Your task to perform on an android device: toggle javascript in the chrome app Image 0: 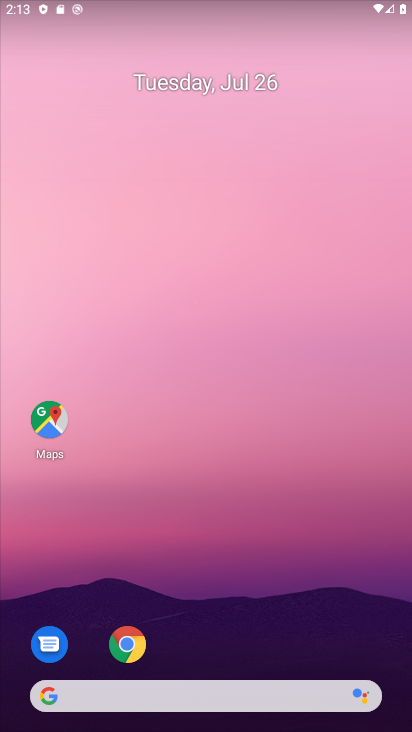
Step 0: press home button
Your task to perform on an android device: toggle javascript in the chrome app Image 1: 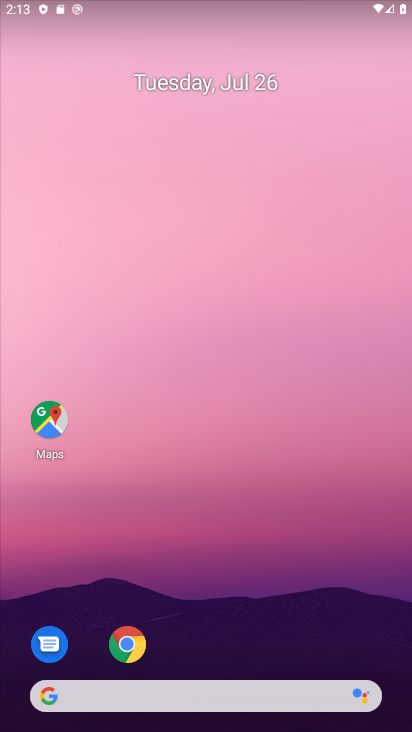
Step 1: click (124, 643)
Your task to perform on an android device: toggle javascript in the chrome app Image 2: 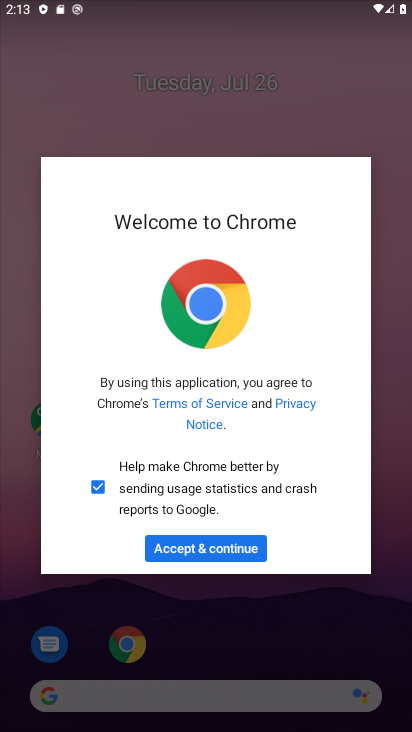
Step 2: click (218, 549)
Your task to perform on an android device: toggle javascript in the chrome app Image 3: 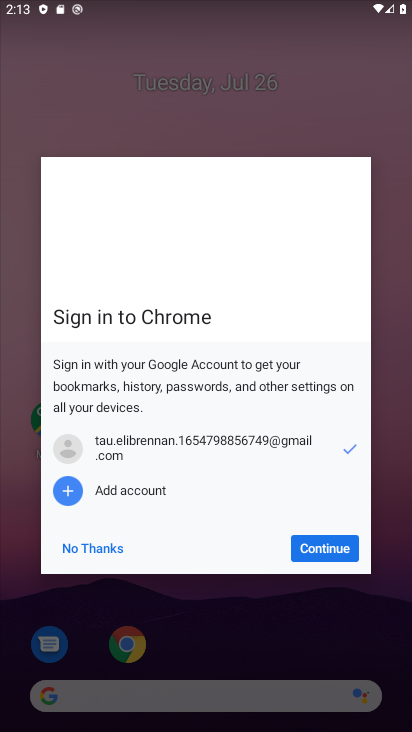
Step 3: click (321, 557)
Your task to perform on an android device: toggle javascript in the chrome app Image 4: 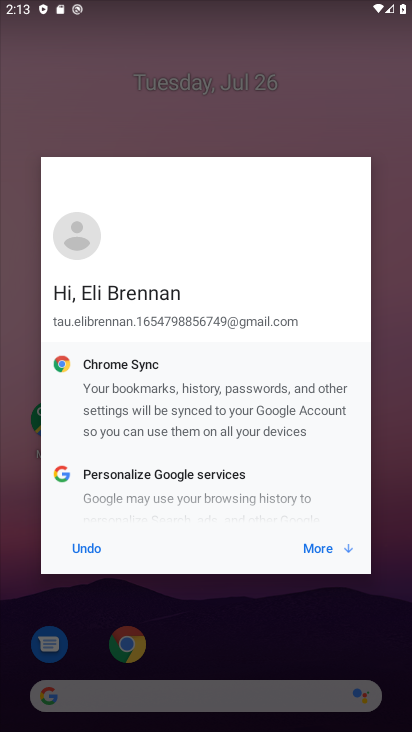
Step 4: click (318, 549)
Your task to perform on an android device: toggle javascript in the chrome app Image 5: 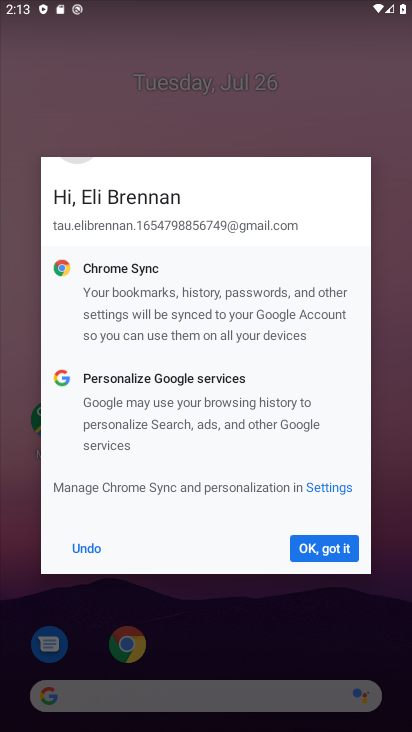
Step 5: click (319, 551)
Your task to perform on an android device: toggle javascript in the chrome app Image 6: 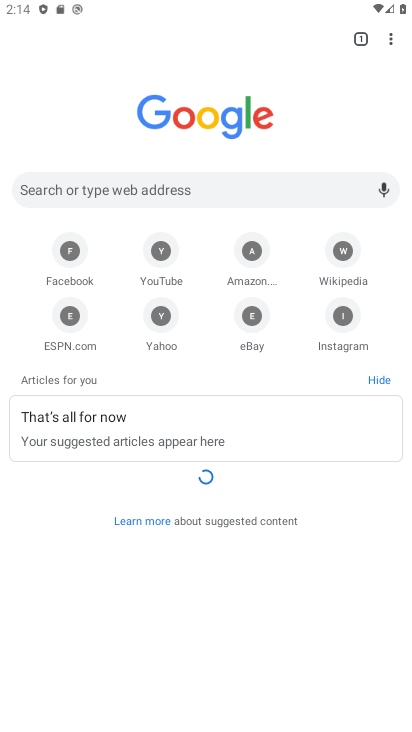
Step 6: drag from (388, 35) to (257, 327)
Your task to perform on an android device: toggle javascript in the chrome app Image 7: 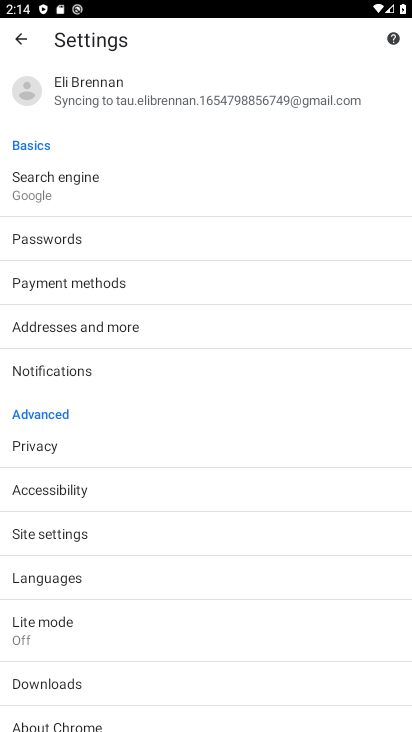
Step 7: click (50, 524)
Your task to perform on an android device: toggle javascript in the chrome app Image 8: 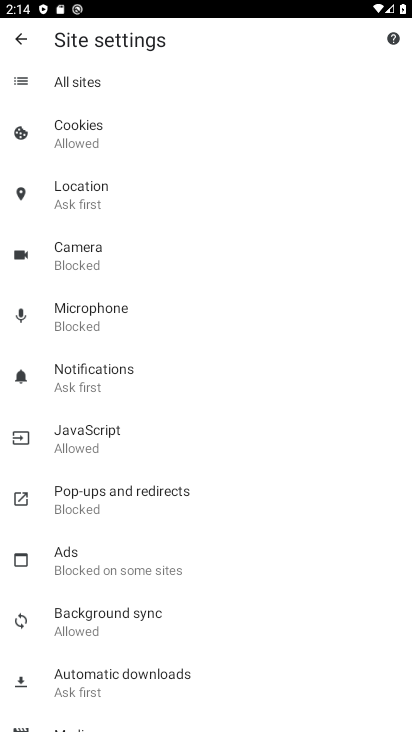
Step 8: click (100, 433)
Your task to perform on an android device: toggle javascript in the chrome app Image 9: 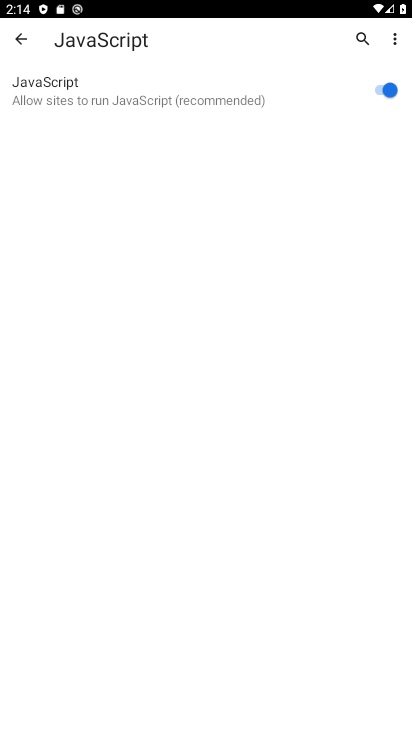
Step 9: click (385, 86)
Your task to perform on an android device: toggle javascript in the chrome app Image 10: 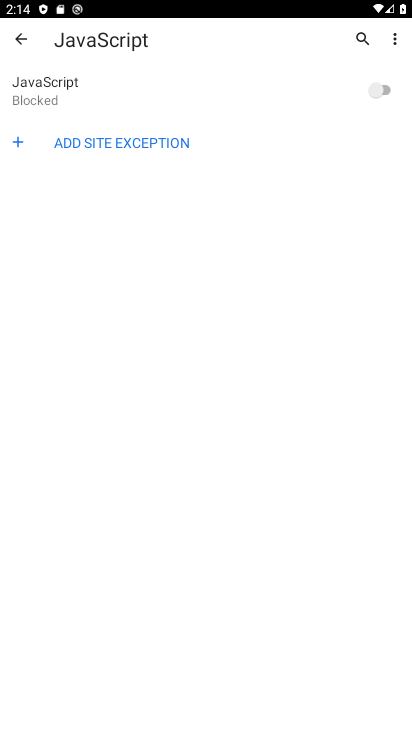
Step 10: task complete